Your task to perform on an android device: Open calendar and show me the third week of next month Image 0: 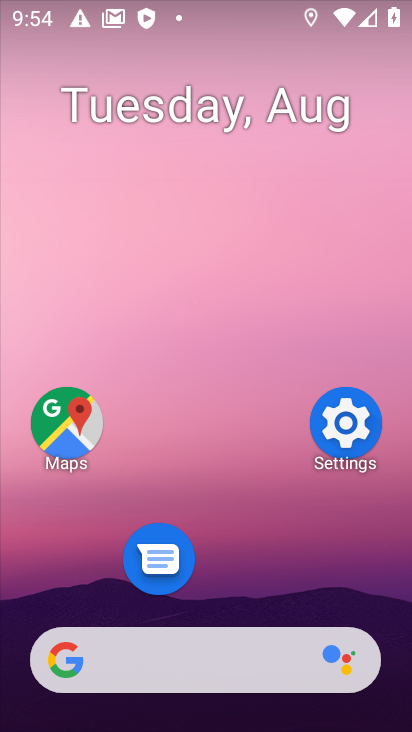
Step 0: drag from (249, 633) to (327, 90)
Your task to perform on an android device: Open calendar and show me the third week of next month Image 1: 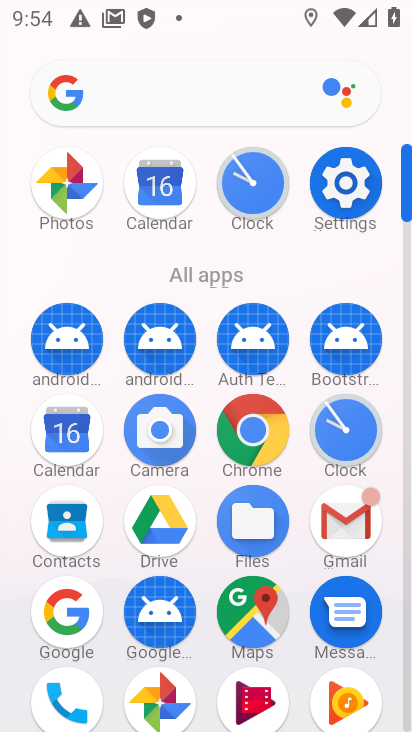
Step 1: click (62, 434)
Your task to perform on an android device: Open calendar and show me the third week of next month Image 2: 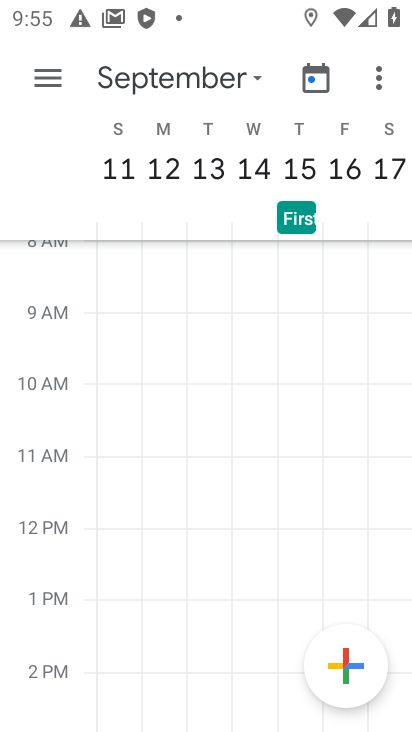
Step 2: task complete